Your task to perform on an android device: turn on wifi Image 0: 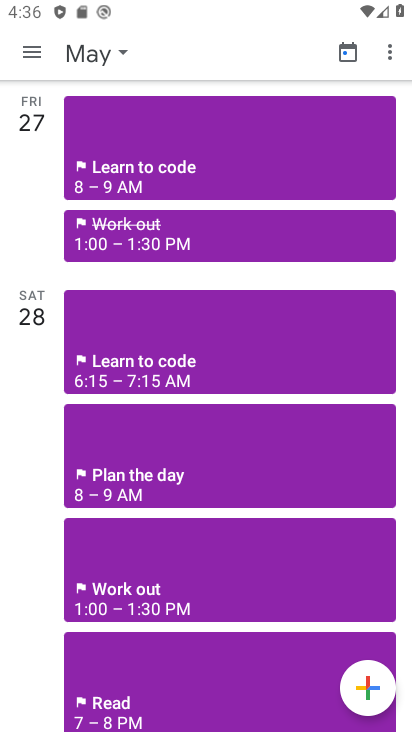
Step 0: drag from (306, 3) to (312, 718)
Your task to perform on an android device: turn on wifi Image 1: 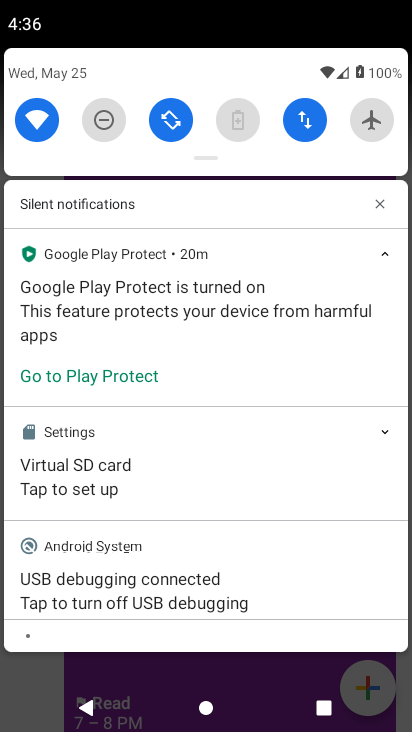
Step 1: task complete